Your task to perform on an android device: What is the recent news? Image 0: 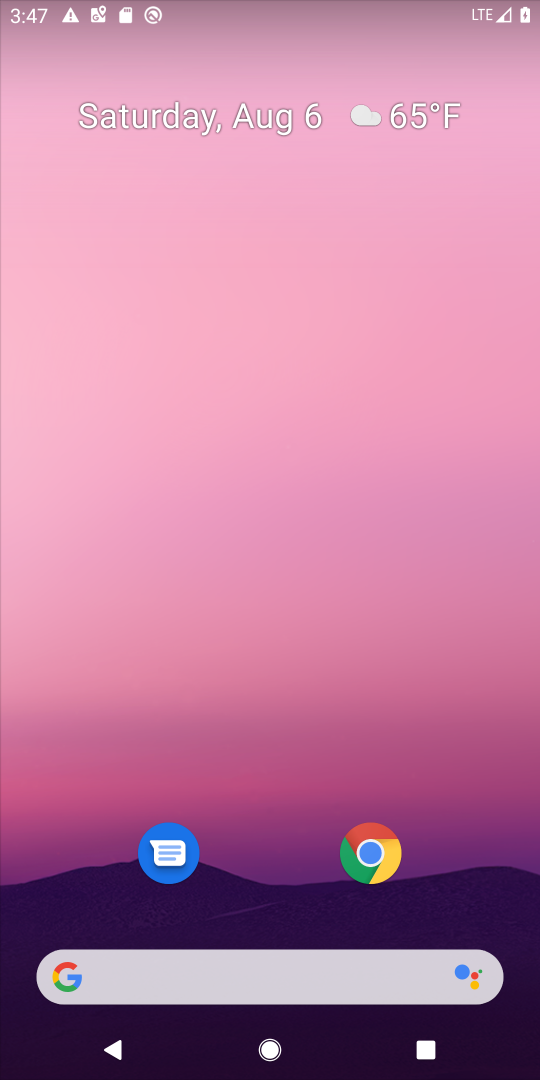
Step 0: click (267, 959)
Your task to perform on an android device: What is the recent news? Image 1: 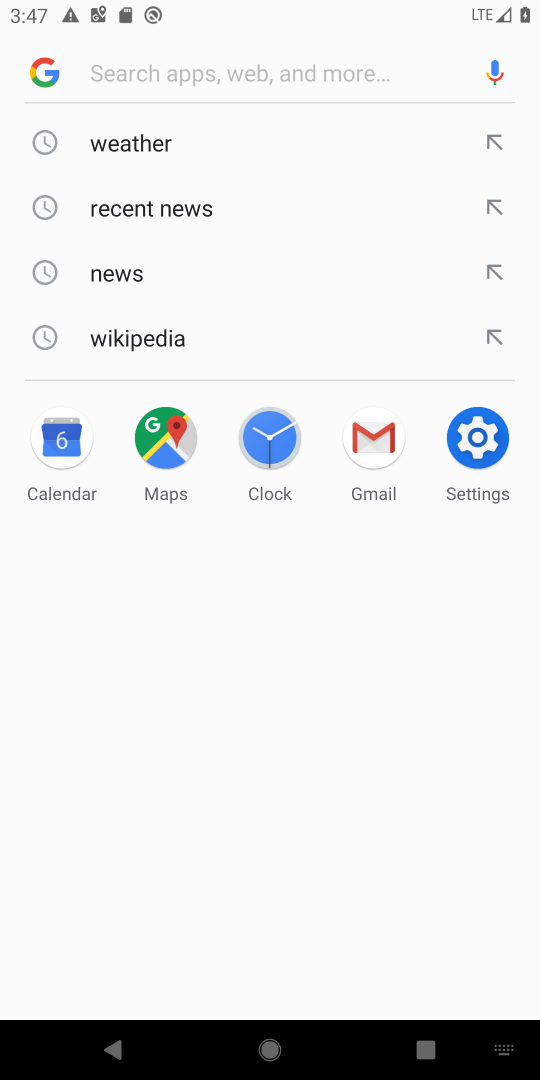
Step 1: click (155, 203)
Your task to perform on an android device: What is the recent news? Image 2: 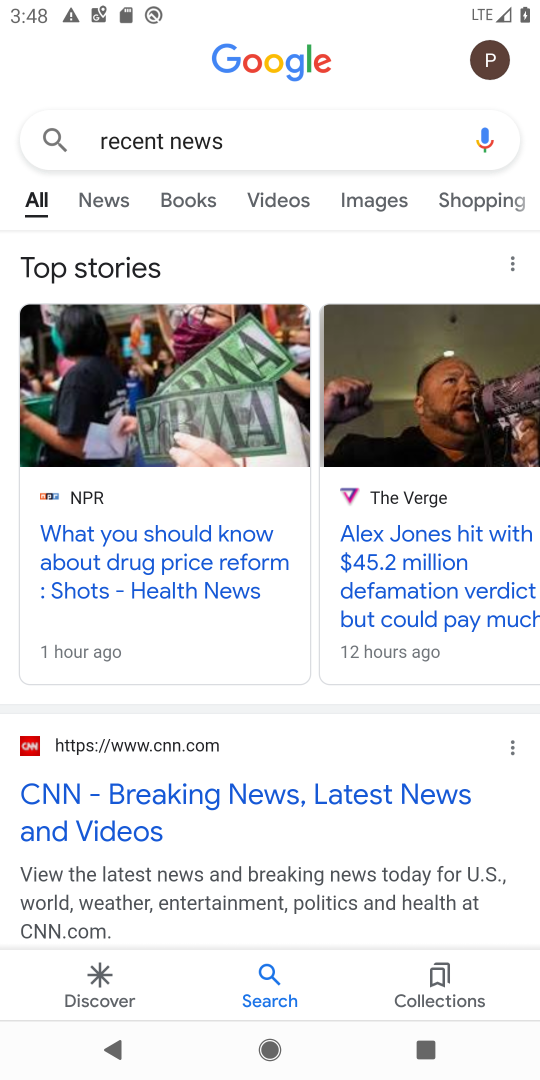
Step 2: task complete